Your task to perform on an android device: Open Chrome and go to the settings page Image 0: 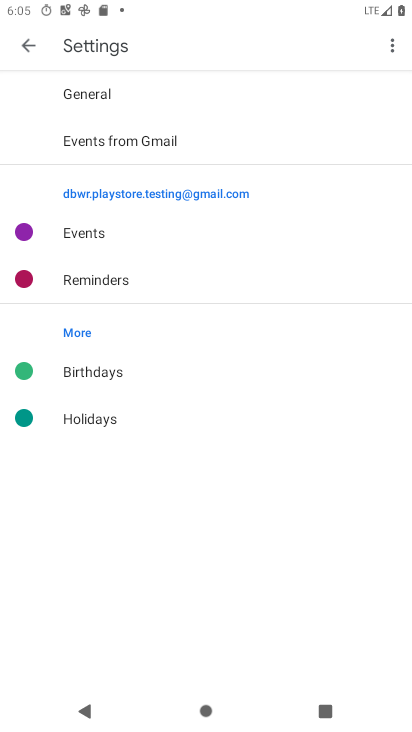
Step 0: press home button
Your task to perform on an android device: Open Chrome and go to the settings page Image 1: 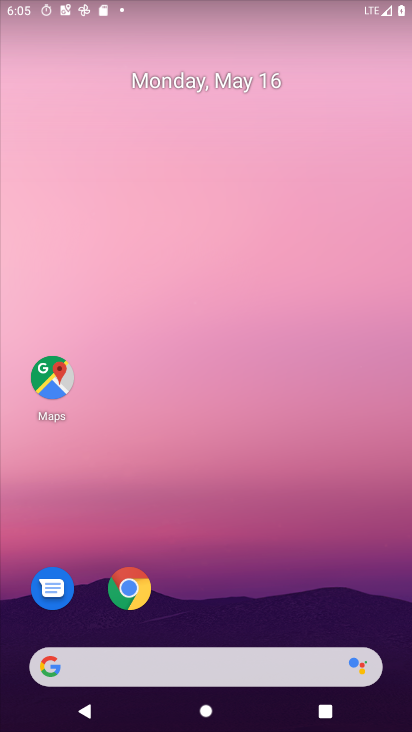
Step 1: drag from (261, 497) to (229, 5)
Your task to perform on an android device: Open Chrome and go to the settings page Image 2: 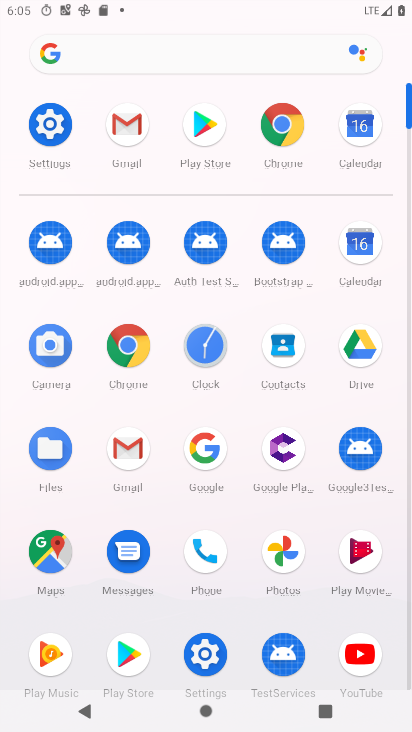
Step 2: click (287, 129)
Your task to perform on an android device: Open Chrome and go to the settings page Image 3: 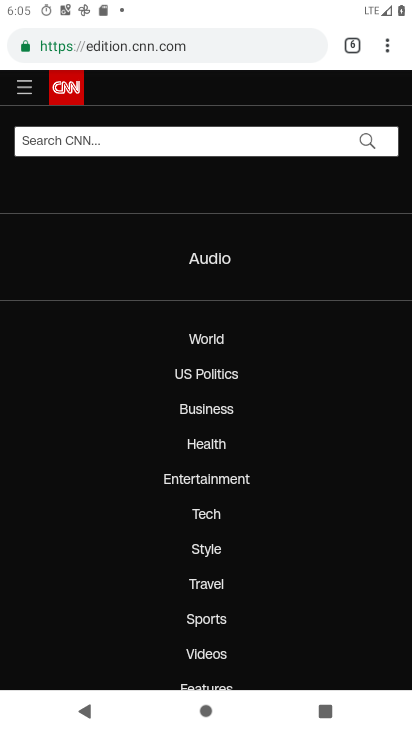
Step 3: click (386, 33)
Your task to perform on an android device: Open Chrome and go to the settings page Image 4: 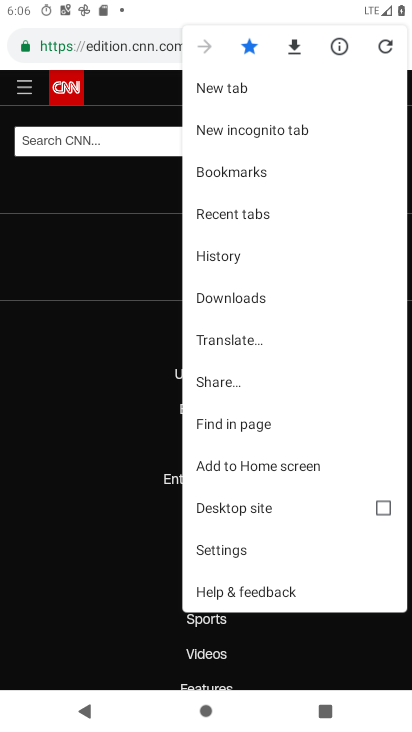
Step 4: click (243, 541)
Your task to perform on an android device: Open Chrome and go to the settings page Image 5: 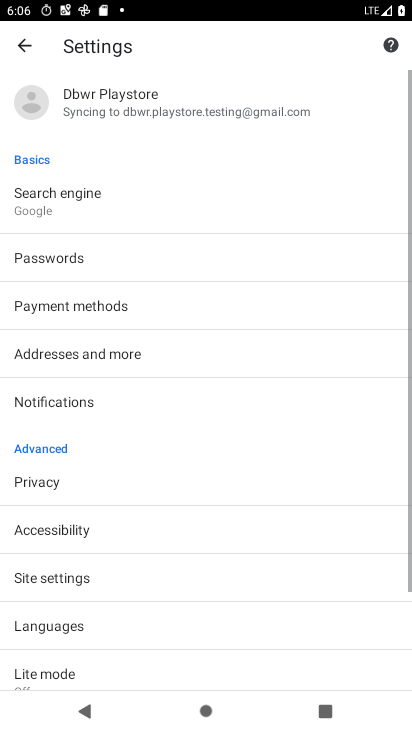
Step 5: task complete